Your task to perform on an android device: toggle javascript in the chrome app Image 0: 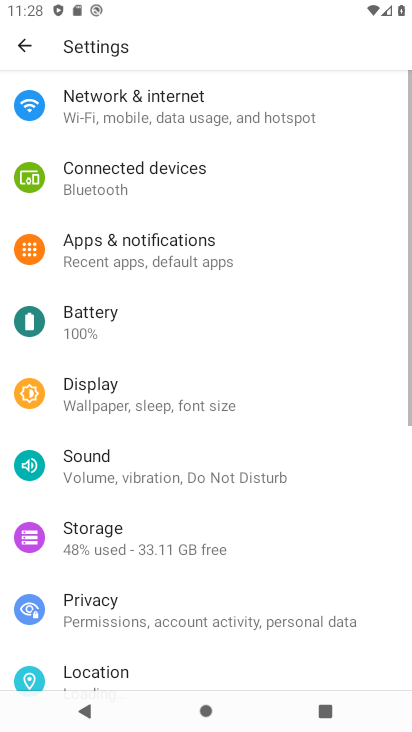
Step 0: press home button
Your task to perform on an android device: toggle javascript in the chrome app Image 1: 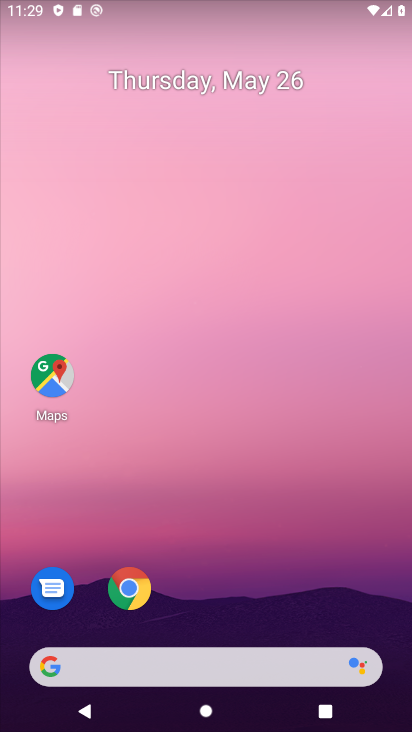
Step 1: click (136, 591)
Your task to perform on an android device: toggle javascript in the chrome app Image 2: 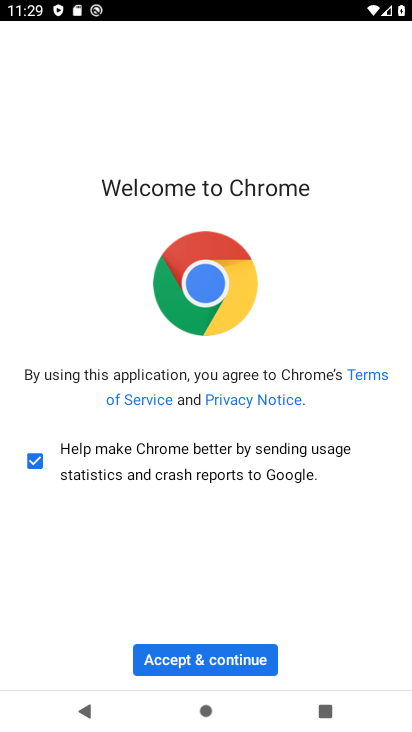
Step 2: click (217, 649)
Your task to perform on an android device: toggle javascript in the chrome app Image 3: 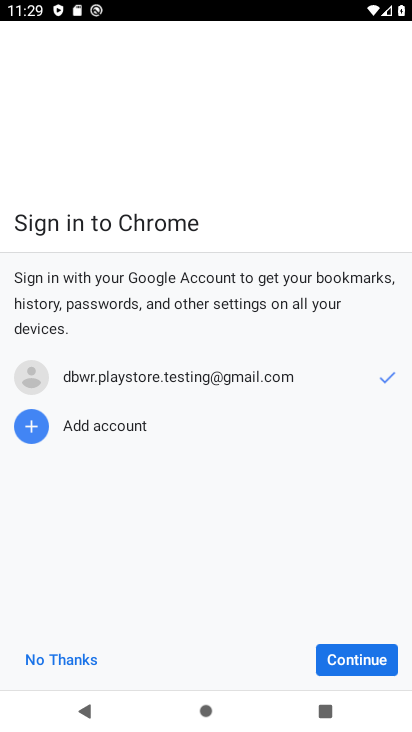
Step 3: click (343, 668)
Your task to perform on an android device: toggle javascript in the chrome app Image 4: 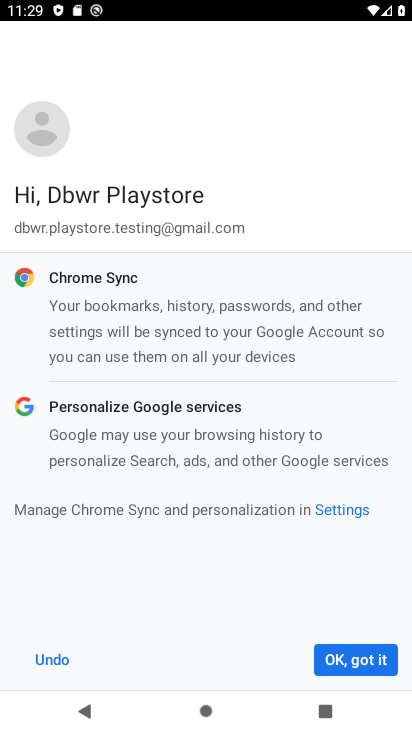
Step 4: click (347, 661)
Your task to perform on an android device: toggle javascript in the chrome app Image 5: 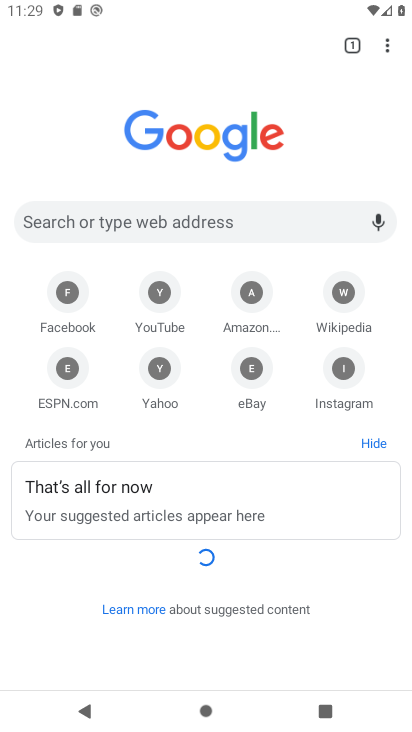
Step 5: drag from (387, 36) to (221, 385)
Your task to perform on an android device: toggle javascript in the chrome app Image 6: 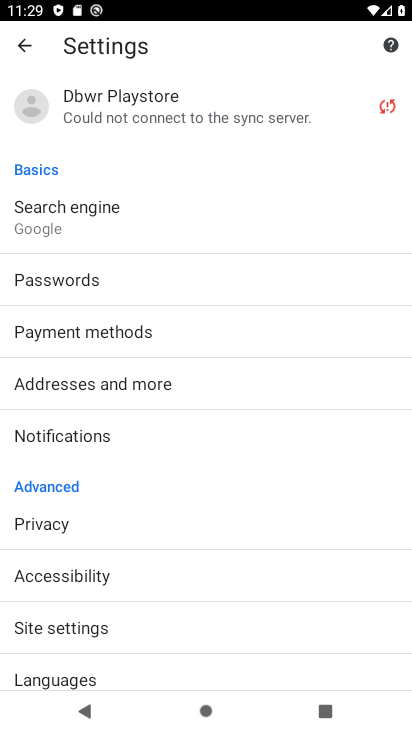
Step 6: click (92, 643)
Your task to perform on an android device: toggle javascript in the chrome app Image 7: 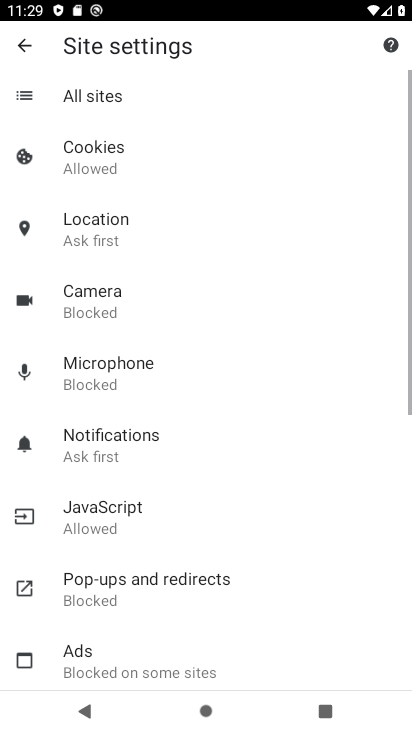
Step 7: click (113, 518)
Your task to perform on an android device: toggle javascript in the chrome app Image 8: 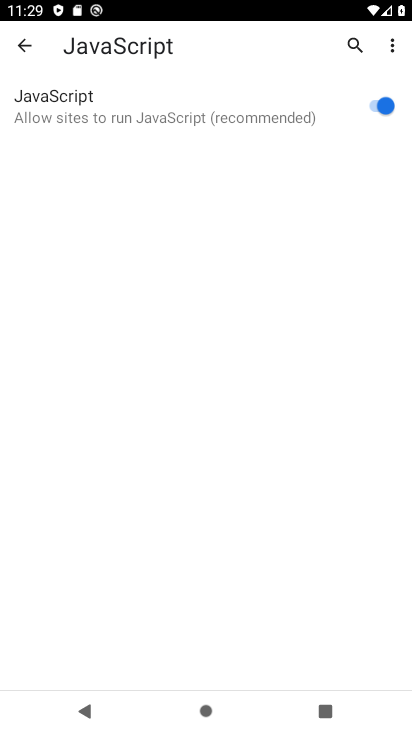
Step 8: click (383, 99)
Your task to perform on an android device: toggle javascript in the chrome app Image 9: 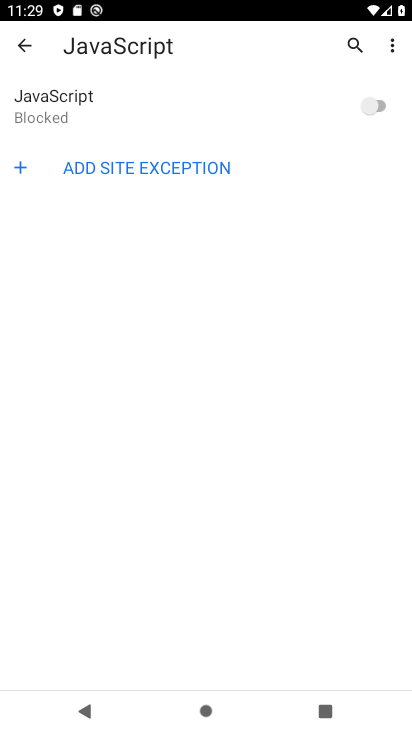
Step 9: task complete